Your task to perform on an android device: Open Chrome and go to settings Image 0: 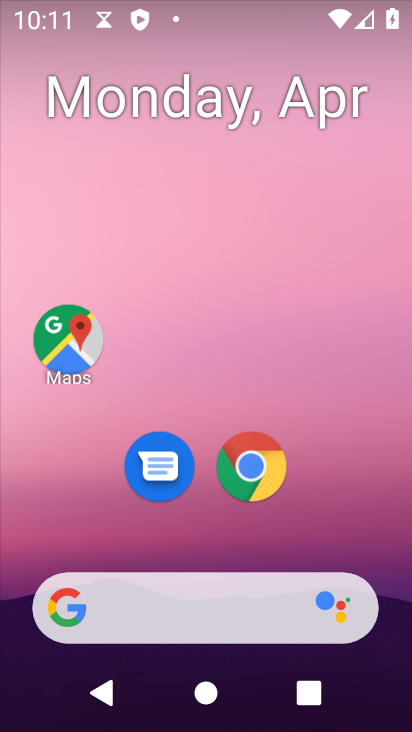
Step 0: click (252, 464)
Your task to perform on an android device: Open Chrome and go to settings Image 1: 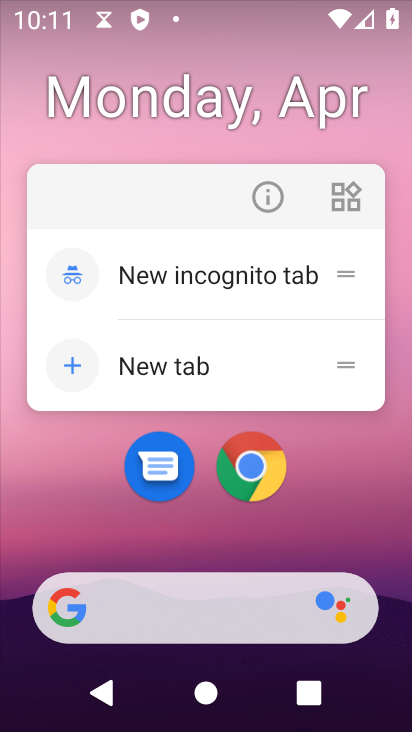
Step 1: click (252, 464)
Your task to perform on an android device: Open Chrome and go to settings Image 2: 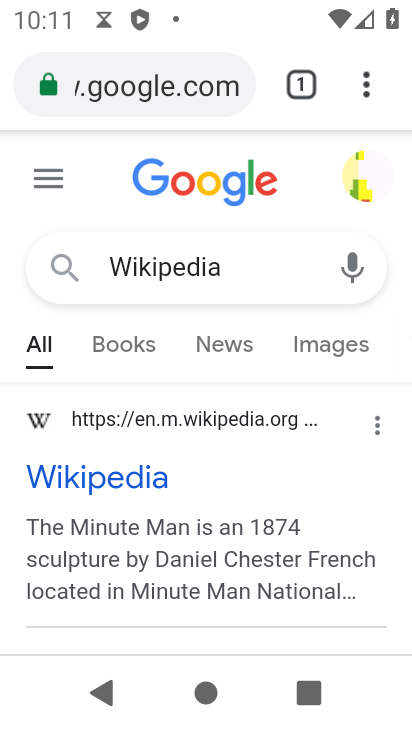
Step 2: click (368, 89)
Your task to perform on an android device: Open Chrome and go to settings Image 3: 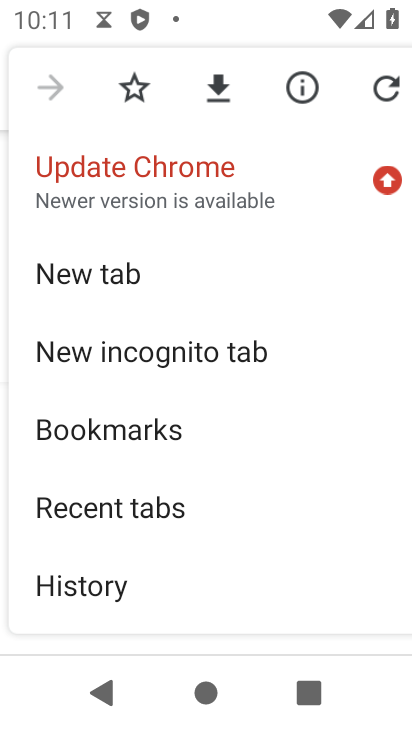
Step 3: drag from (216, 474) to (234, 283)
Your task to perform on an android device: Open Chrome and go to settings Image 4: 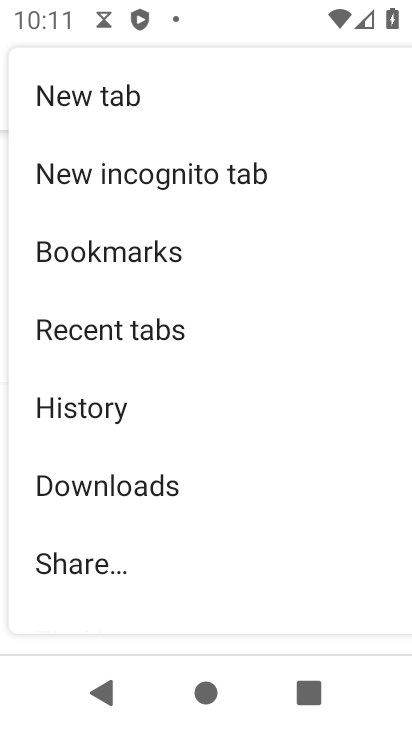
Step 4: drag from (214, 485) to (229, 376)
Your task to perform on an android device: Open Chrome and go to settings Image 5: 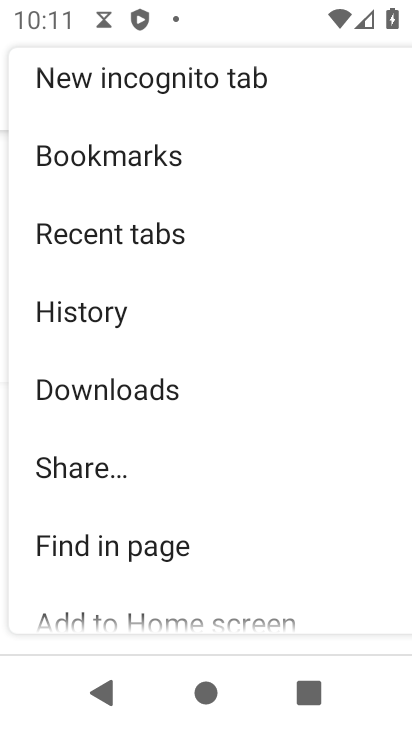
Step 5: drag from (195, 494) to (251, 375)
Your task to perform on an android device: Open Chrome and go to settings Image 6: 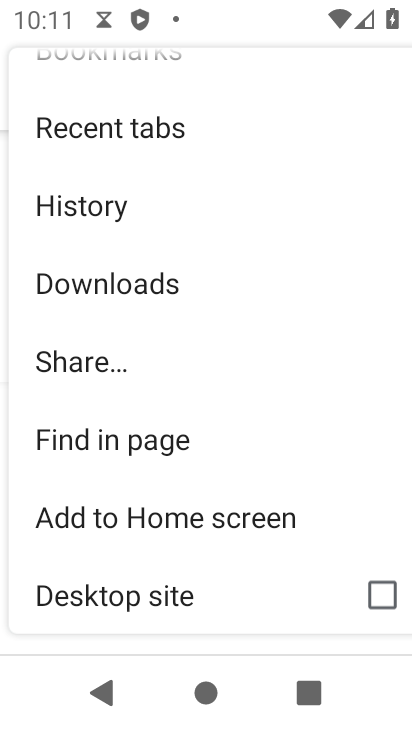
Step 6: drag from (215, 489) to (259, 387)
Your task to perform on an android device: Open Chrome and go to settings Image 7: 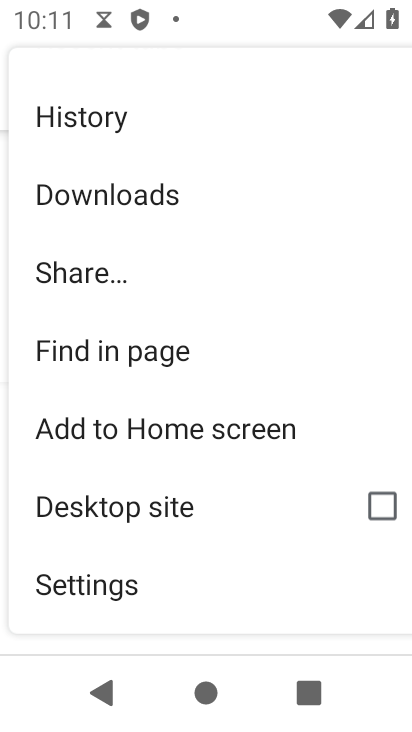
Step 7: drag from (224, 557) to (263, 387)
Your task to perform on an android device: Open Chrome and go to settings Image 8: 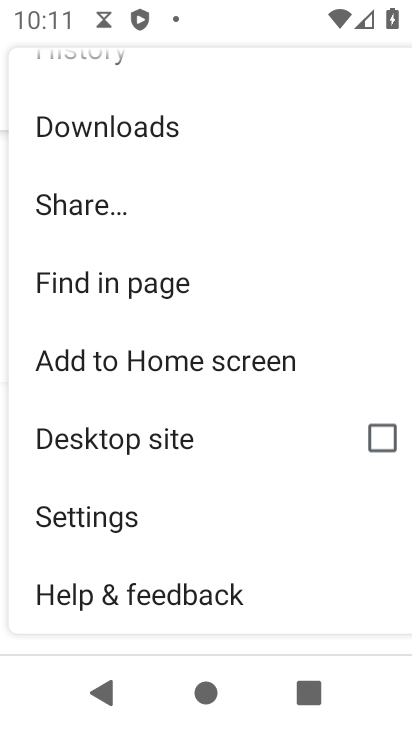
Step 8: click (102, 516)
Your task to perform on an android device: Open Chrome and go to settings Image 9: 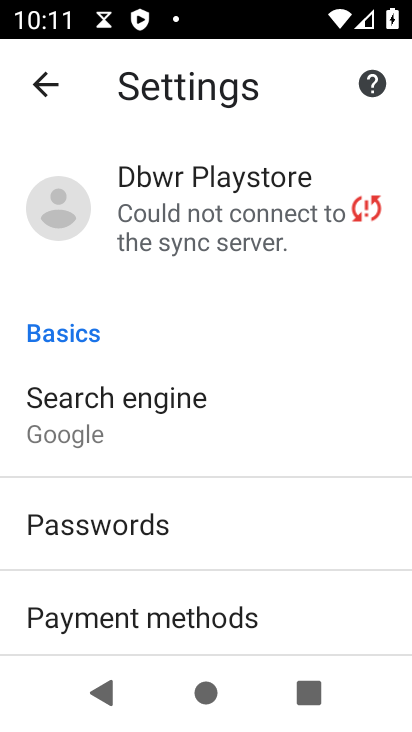
Step 9: task complete